Your task to perform on an android device: Do I have any events tomorrow? Image 0: 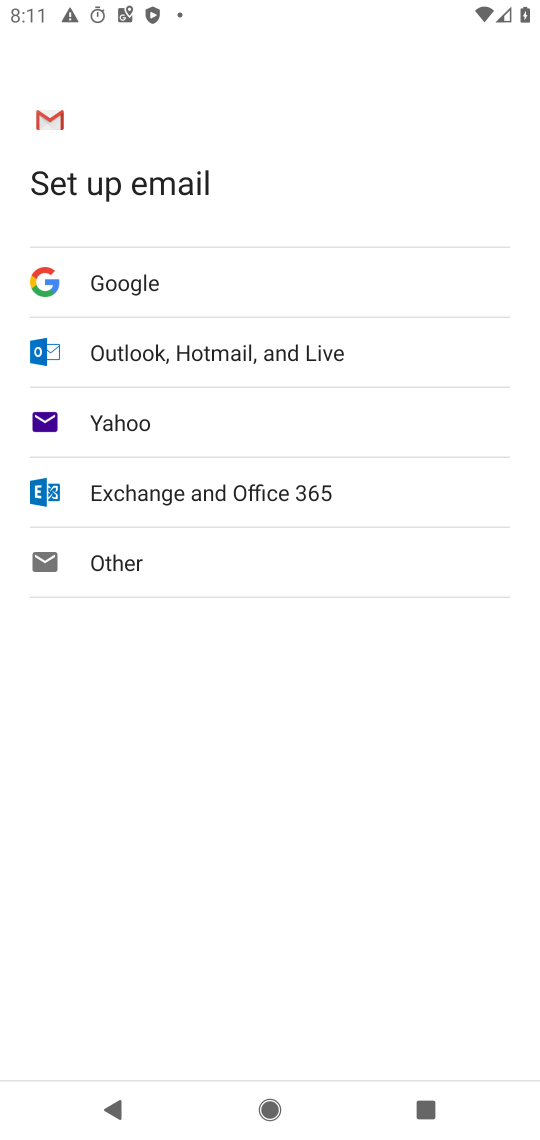
Step 0: press home button
Your task to perform on an android device: Do I have any events tomorrow? Image 1: 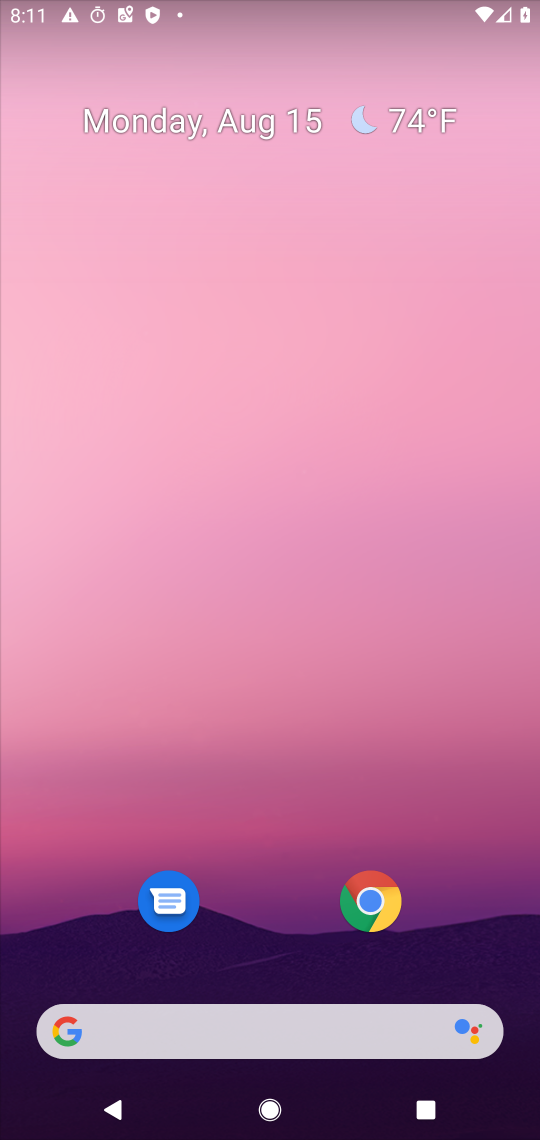
Step 1: drag from (284, 980) to (291, 1)
Your task to perform on an android device: Do I have any events tomorrow? Image 2: 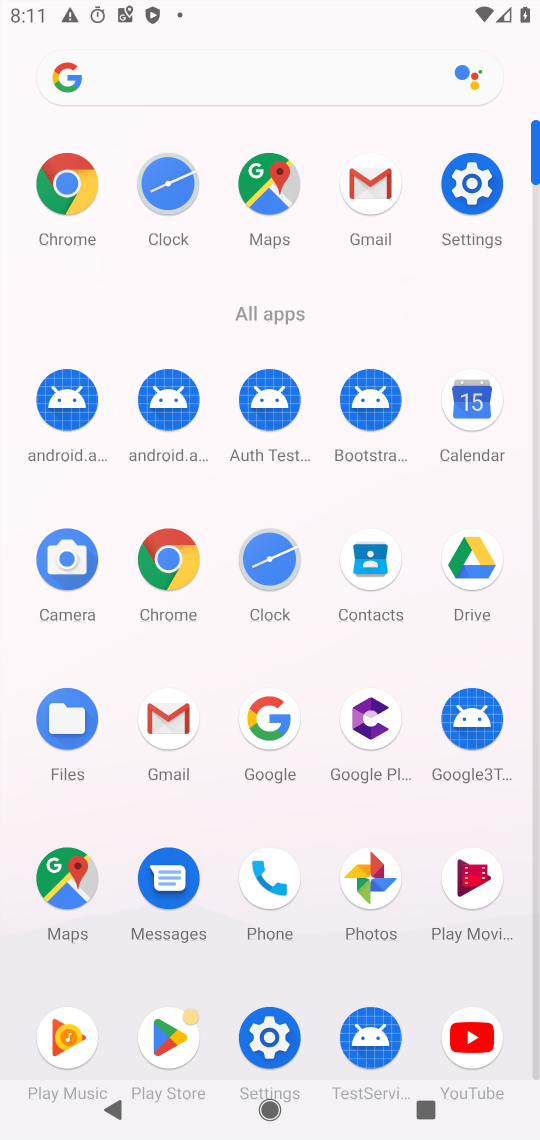
Step 2: click (489, 386)
Your task to perform on an android device: Do I have any events tomorrow? Image 3: 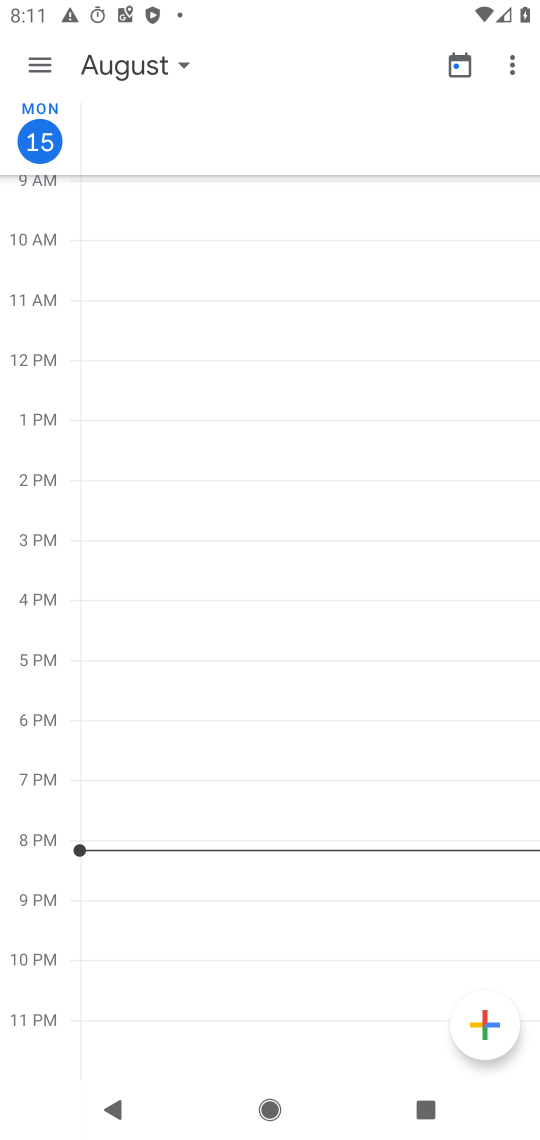
Step 3: click (40, 63)
Your task to perform on an android device: Do I have any events tomorrow? Image 4: 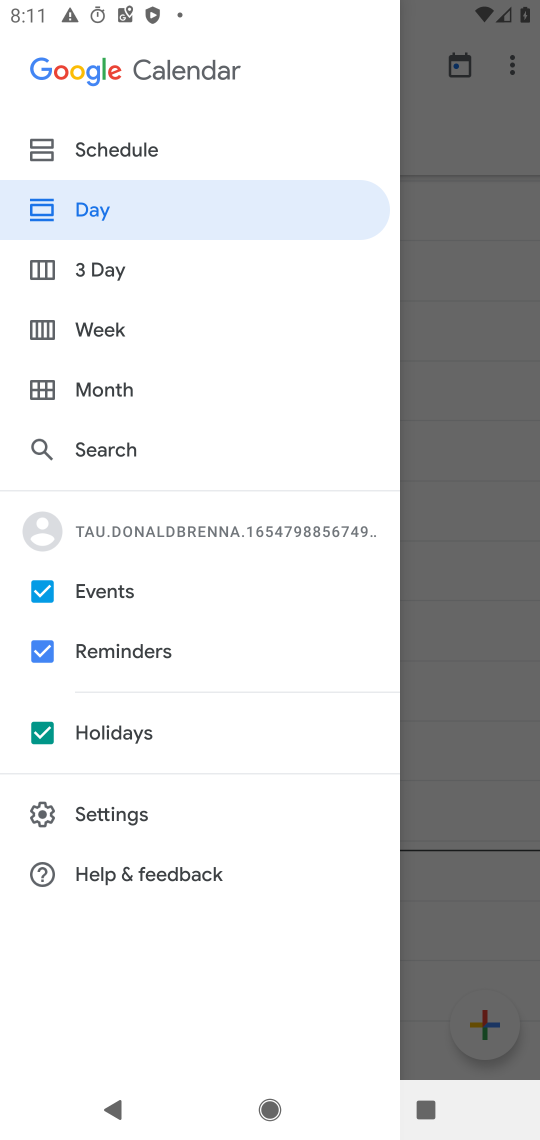
Step 4: click (109, 656)
Your task to perform on an android device: Do I have any events tomorrow? Image 5: 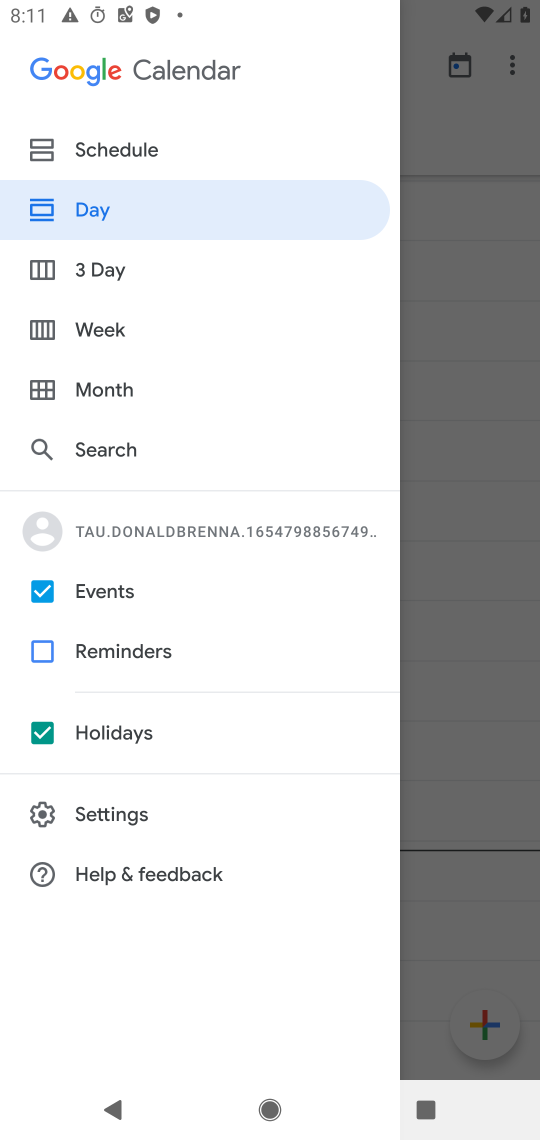
Step 5: click (87, 742)
Your task to perform on an android device: Do I have any events tomorrow? Image 6: 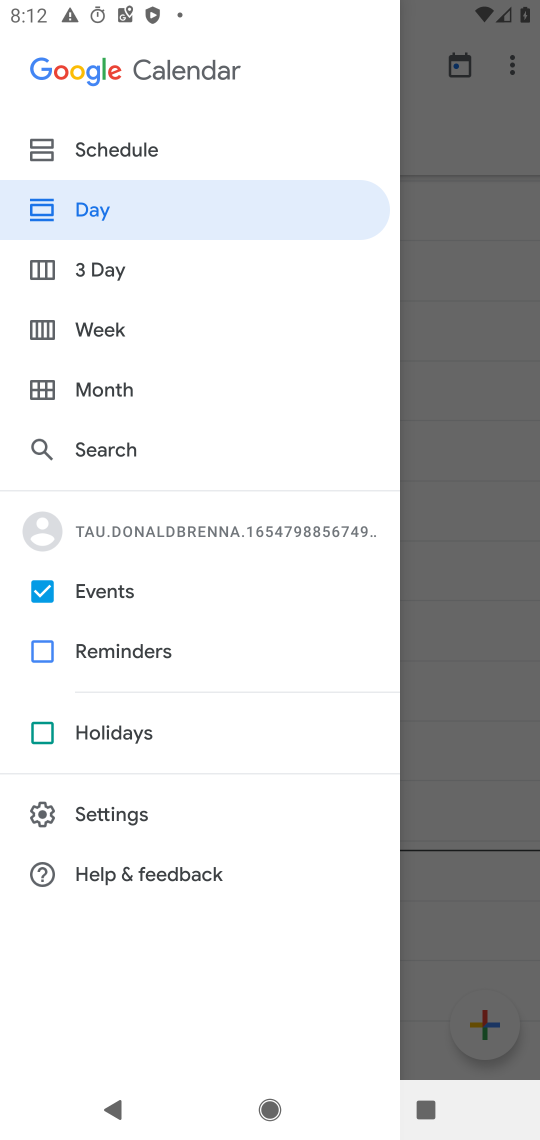
Step 6: click (118, 264)
Your task to perform on an android device: Do I have any events tomorrow? Image 7: 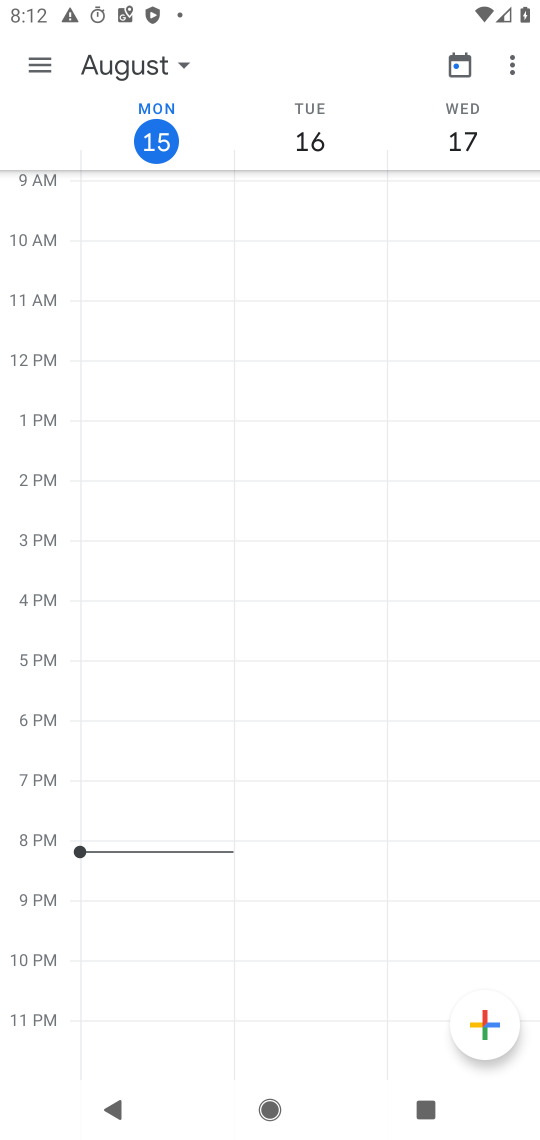
Step 7: task complete